Your task to perform on an android device: Go to Maps Image 0: 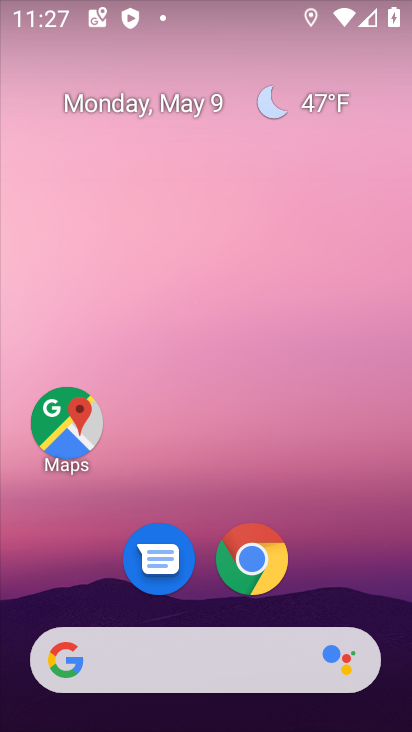
Step 0: drag from (349, 586) to (320, 84)
Your task to perform on an android device: Go to Maps Image 1: 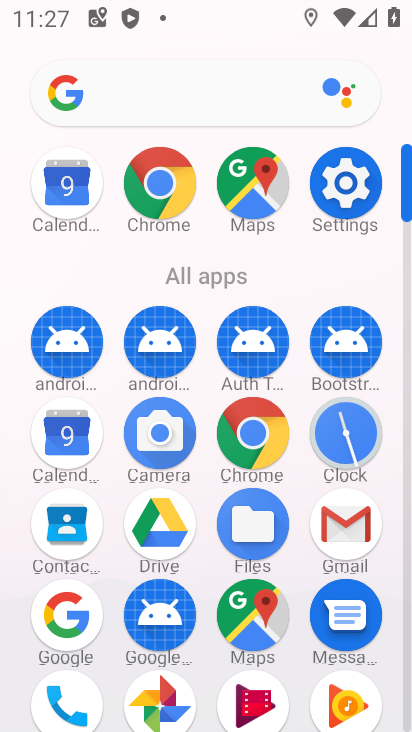
Step 1: click (239, 612)
Your task to perform on an android device: Go to Maps Image 2: 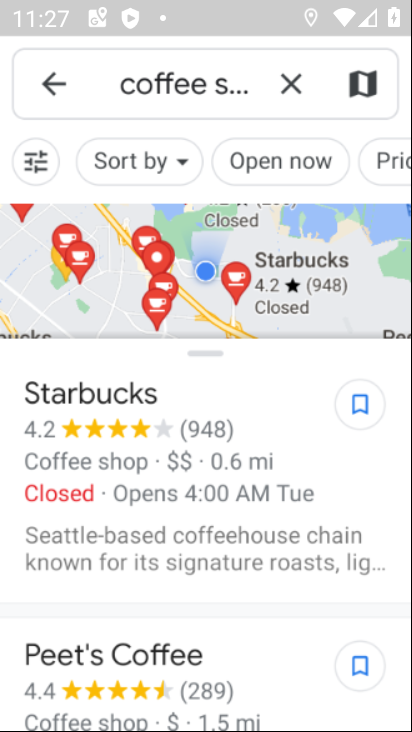
Step 2: task complete